Your task to perform on an android device: toggle pop-ups in chrome Image 0: 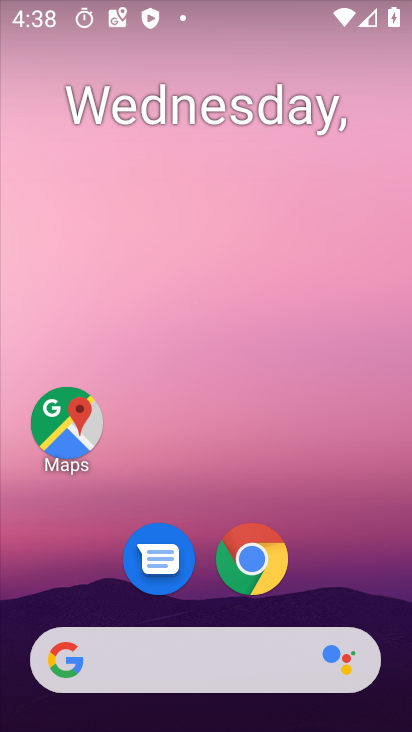
Step 0: click (261, 568)
Your task to perform on an android device: toggle pop-ups in chrome Image 1: 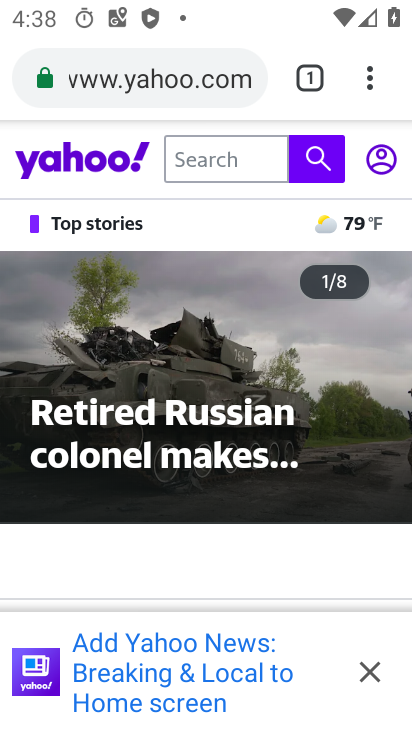
Step 1: click (372, 65)
Your task to perform on an android device: toggle pop-ups in chrome Image 2: 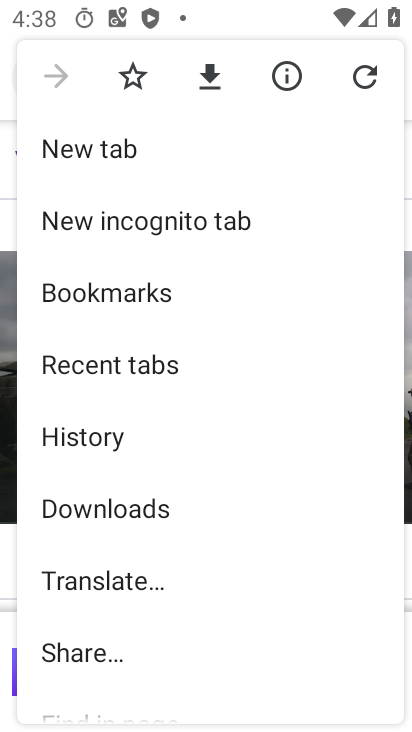
Step 2: drag from (259, 624) to (197, 139)
Your task to perform on an android device: toggle pop-ups in chrome Image 3: 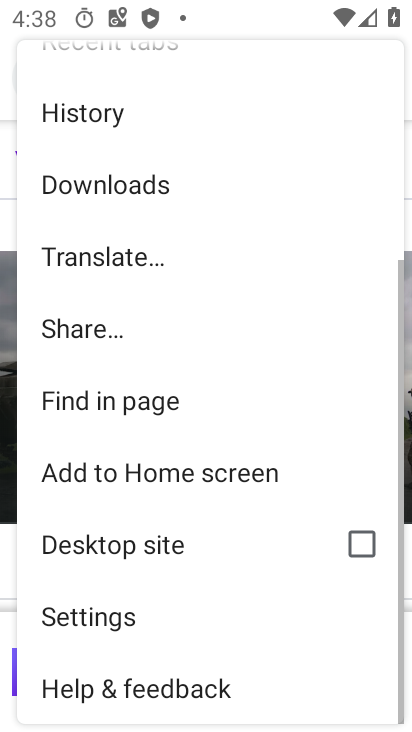
Step 3: click (196, 594)
Your task to perform on an android device: toggle pop-ups in chrome Image 4: 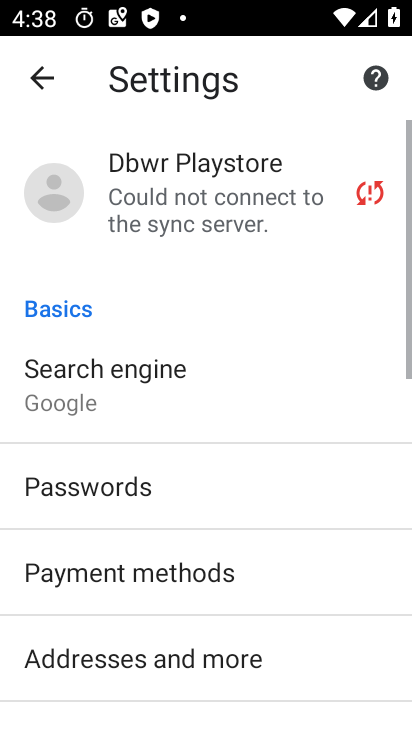
Step 4: drag from (227, 577) to (201, 60)
Your task to perform on an android device: toggle pop-ups in chrome Image 5: 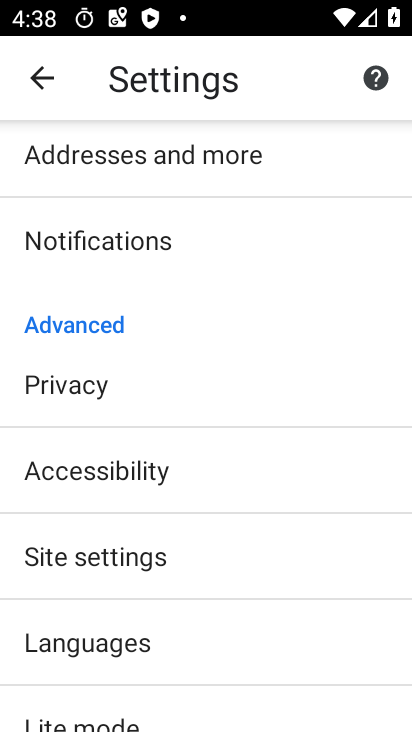
Step 5: click (138, 571)
Your task to perform on an android device: toggle pop-ups in chrome Image 6: 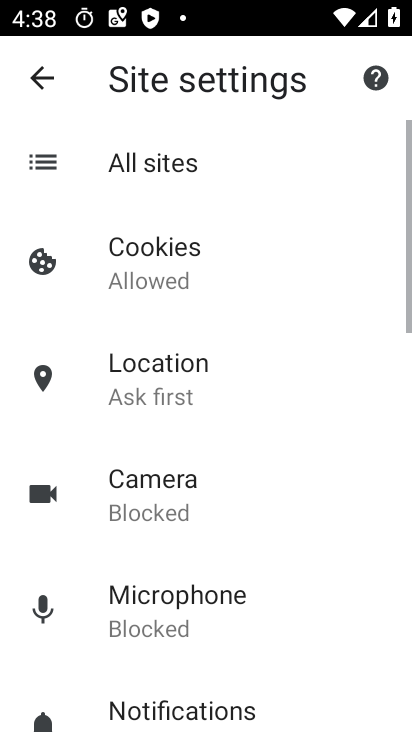
Step 6: drag from (264, 617) to (267, 168)
Your task to perform on an android device: toggle pop-ups in chrome Image 7: 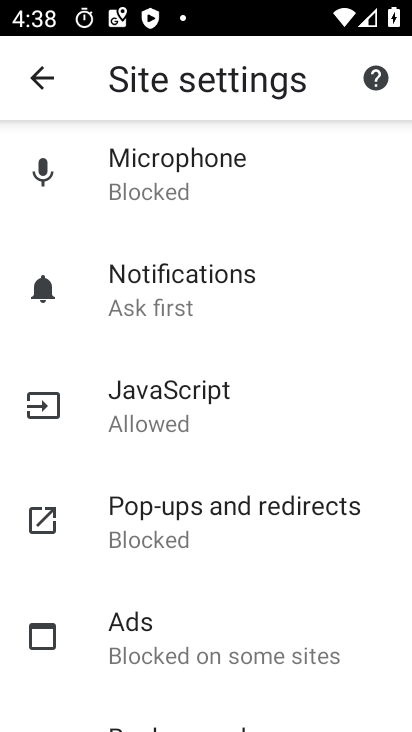
Step 7: click (237, 507)
Your task to perform on an android device: toggle pop-ups in chrome Image 8: 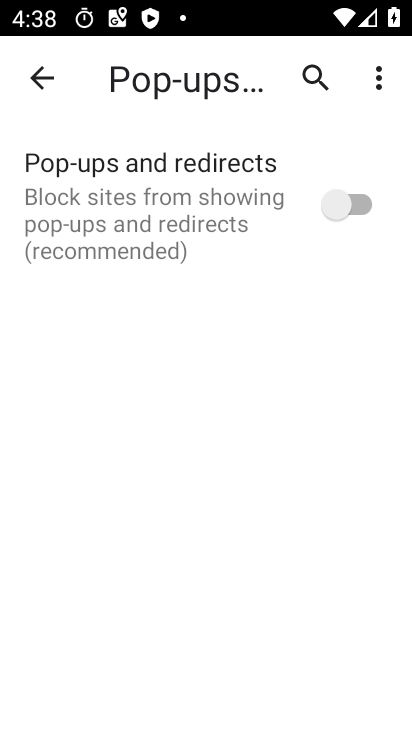
Step 8: click (349, 216)
Your task to perform on an android device: toggle pop-ups in chrome Image 9: 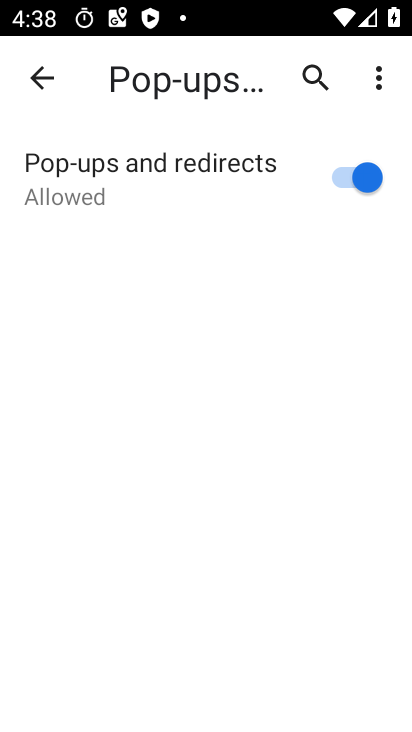
Step 9: task complete